Your task to perform on an android device: turn off javascript in the chrome app Image 0: 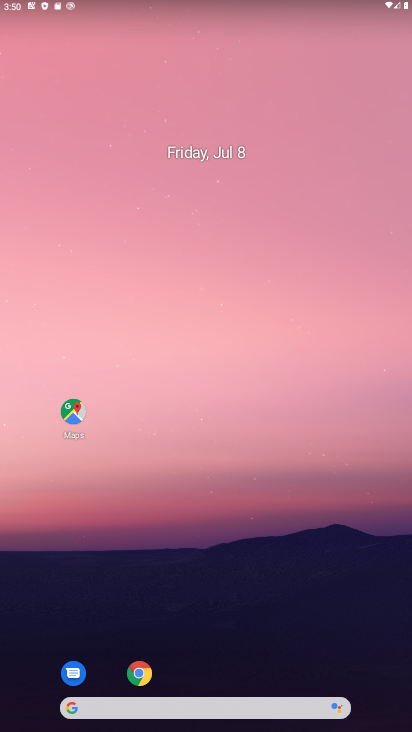
Step 0: click (142, 674)
Your task to perform on an android device: turn off javascript in the chrome app Image 1: 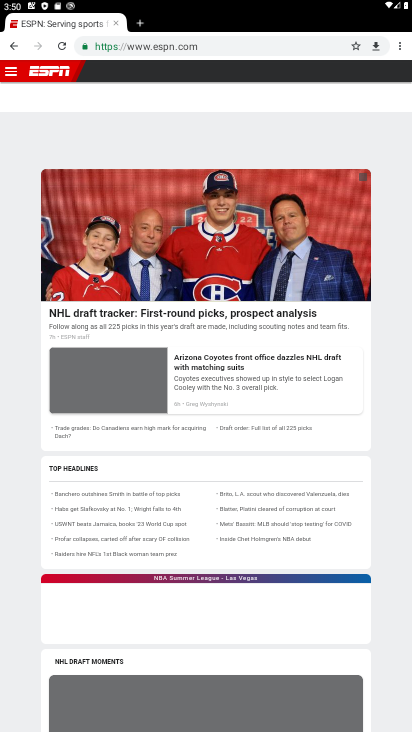
Step 1: click (401, 48)
Your task to perform on an android device: turn off javascript in the chrome app Image 2: 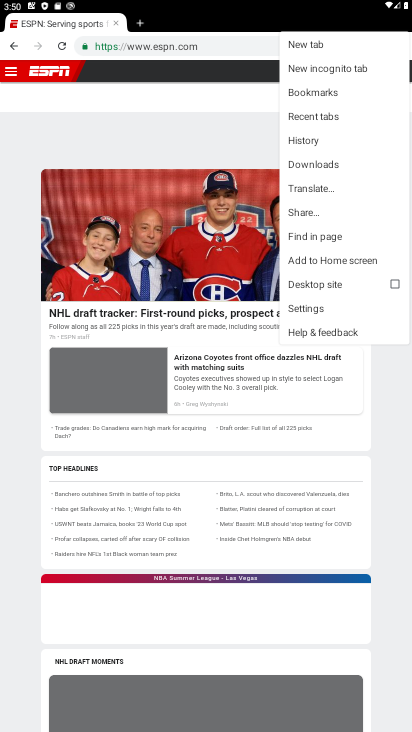
Step 2: click (308, 310)
Your task to perform on an android device: turn off javascript in the chrome app Image 3: 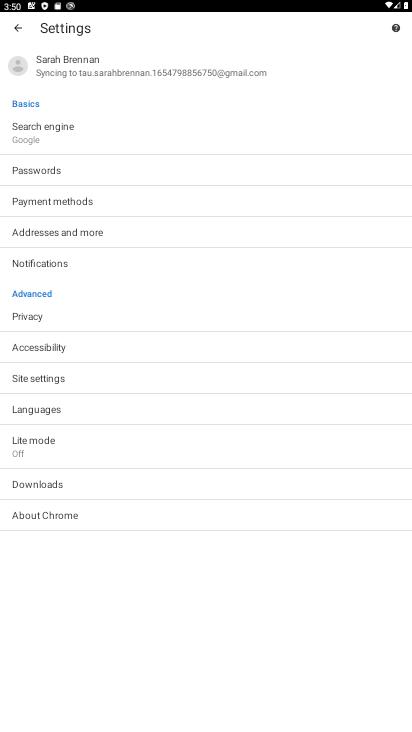
Step 3: click (48, 378)
Your task to perform on an android device: turn off javascript in the chrome app Image 4: 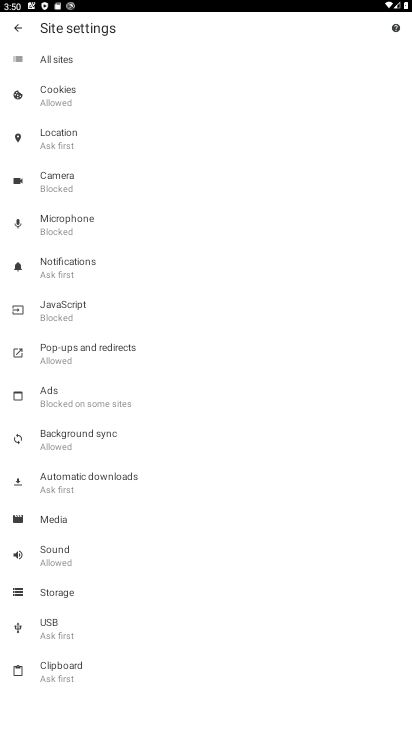
Step 4: click (54, 313)
Your task to perform on an android device: turn off javascript in the chrome app Image 5: 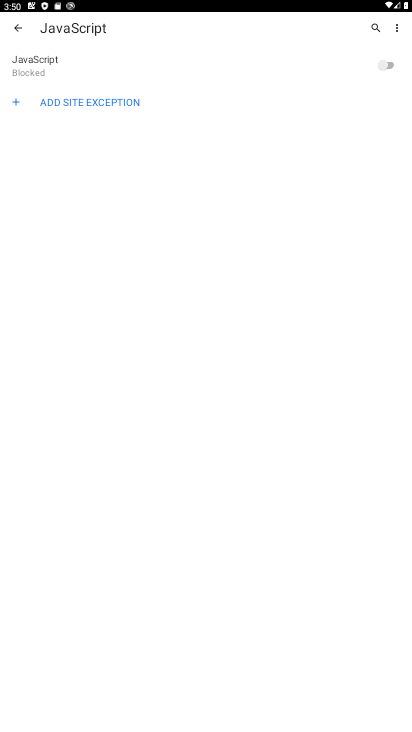
Step 5: task complete